Your task to perform on an android device: turn off notifications settings in the gmail app Image 0: 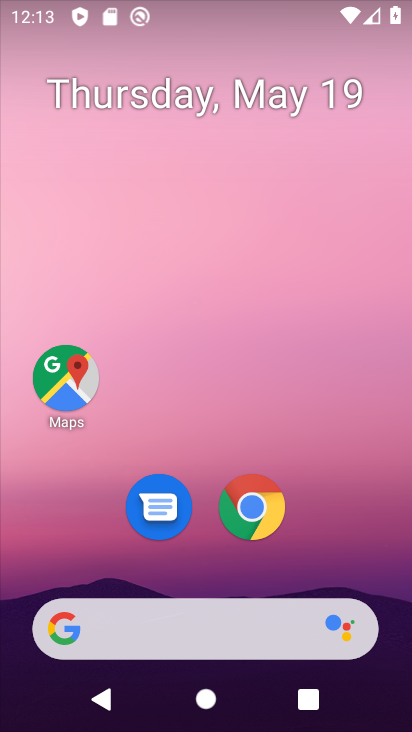
Step 0: drag from (190, 581) to (211, 84)
Your task to perform on an android device: turn off notifications settings in the gmail app Image 1: 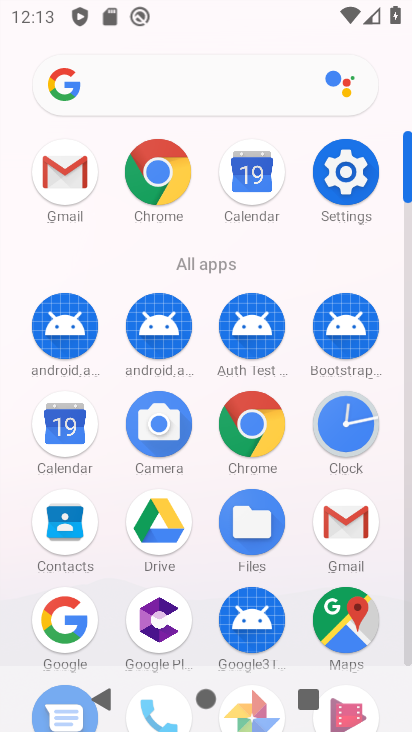
Step 1: click (357, 532)
Your task to perform on an android device: turn off notifications settings in the gmail app Image 2: 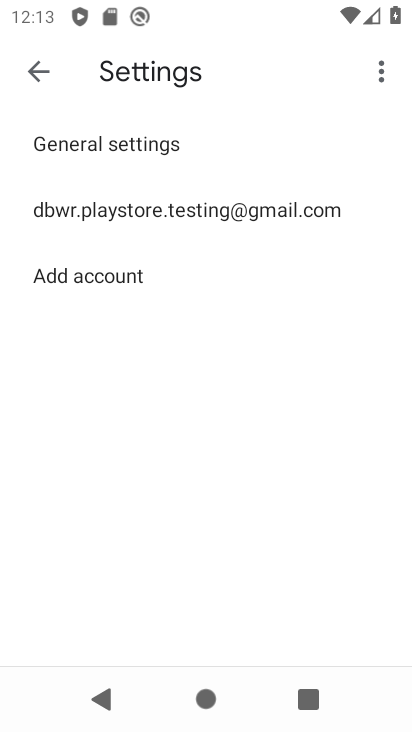
Step 2: click (120, 148)
Your task to perform on an android device: turn off notifications settings in the gmail app Image 3: 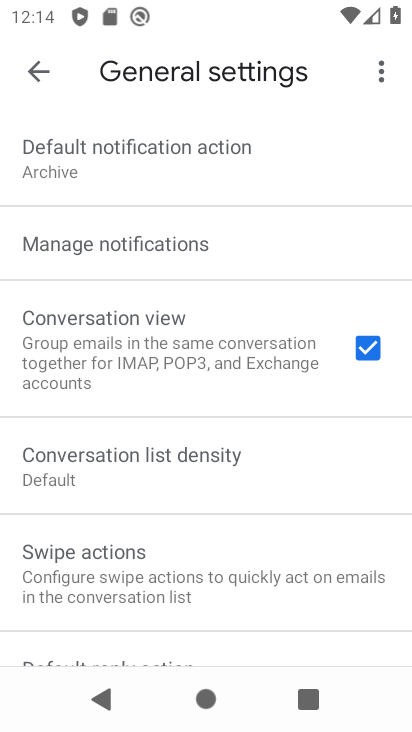
Step 3: click (187, 234)
Your task to perform on an android device: turn off notifications settings in the gmail app Image 4: 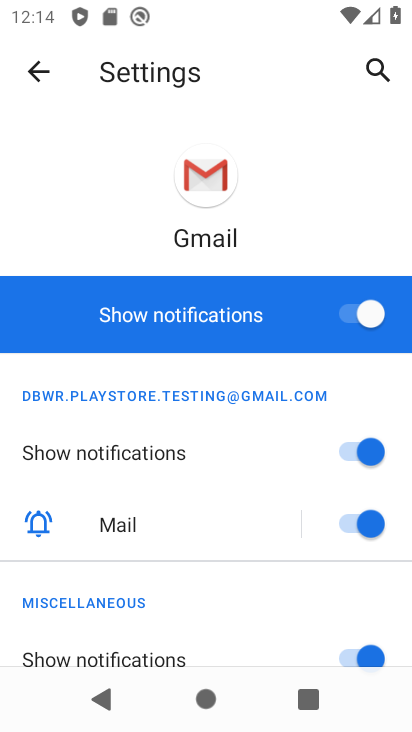
Step 4: click (324, 322)
Your task to perform on an android device: turn off notifications settings in the gmail app Image 5: 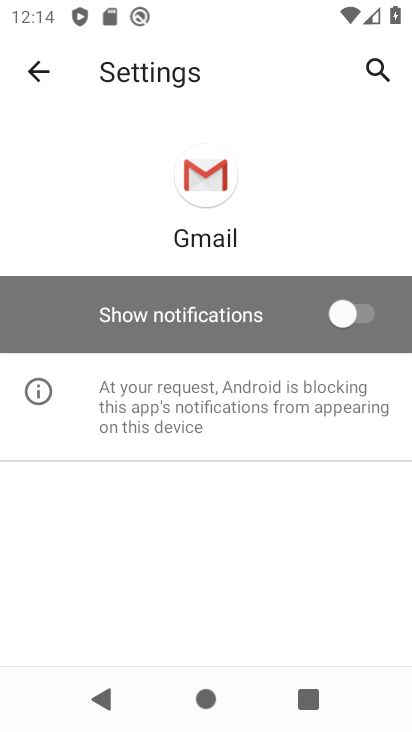
Step 5: task complete